Your task to perform on an android device: Go to Maps Image 0: 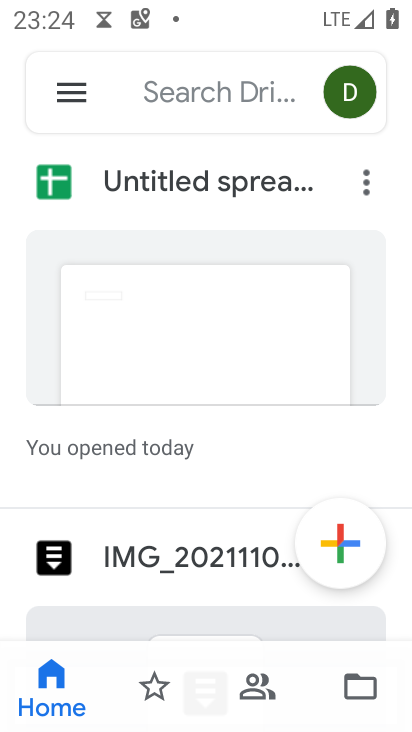
Step 0: press home button
Your task to perform on an android device: Go to Maps Image 1: 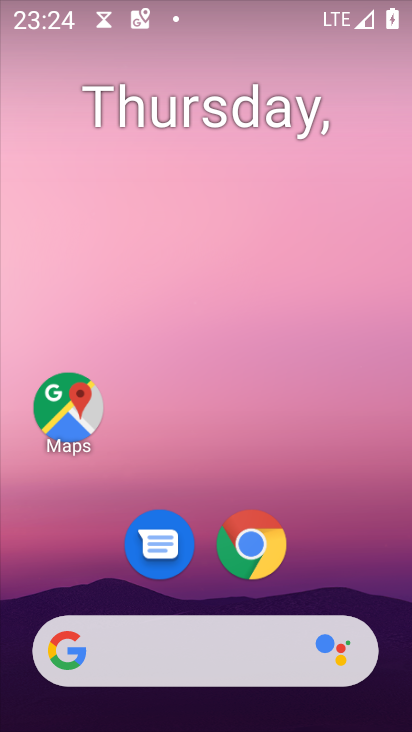
Step 1: click (60, 408)
Your task to perform on an android device: Go to Maps Image 2: 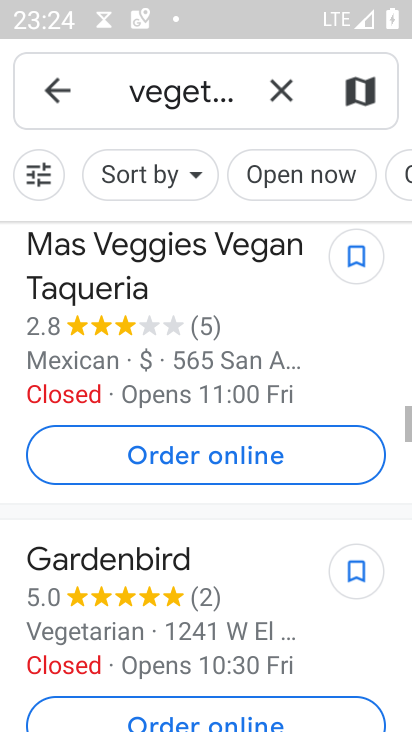
Step 2: task complete